Your task to perform on an android device: choose inbox layout in the gmail app Image 0: 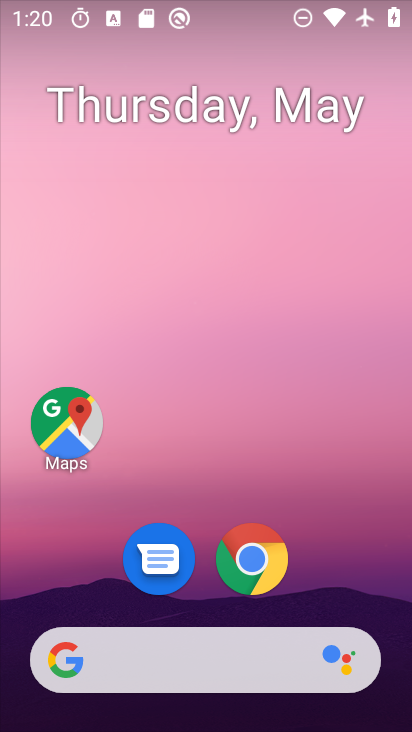
Step 0: drag from (336, 608) to (318, 21)
Your task to perform on an android device: choose inbox layout in the gmail app Image 1: 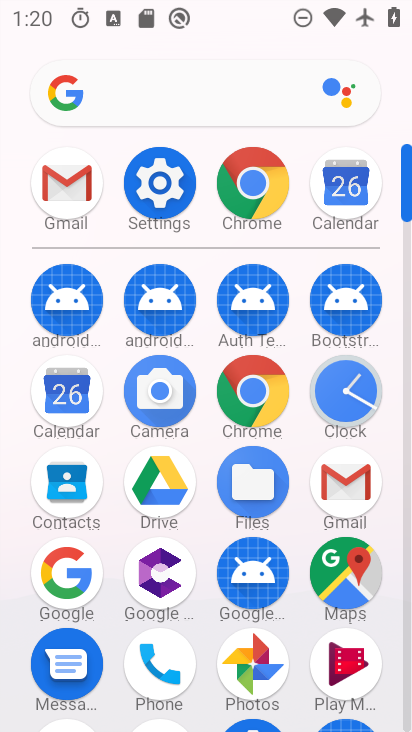
Step 1: click (349, 507)
Your task to perform on an android device: choose inbox layout in the gmail app Image 2: 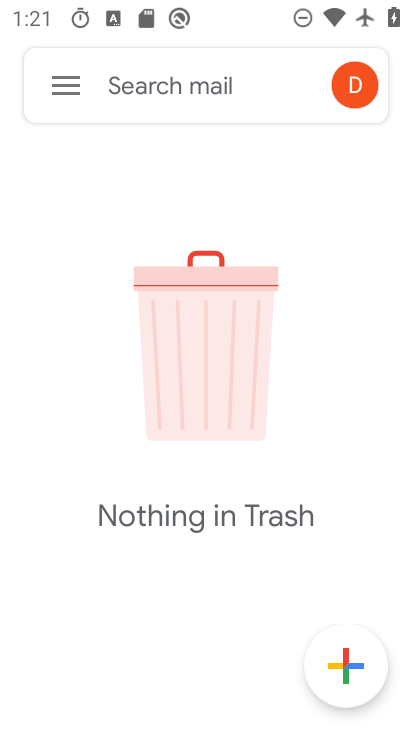
Step 2: task complete